Your task to perform on an android device: What's the weather going to be this weekend? Image 0: 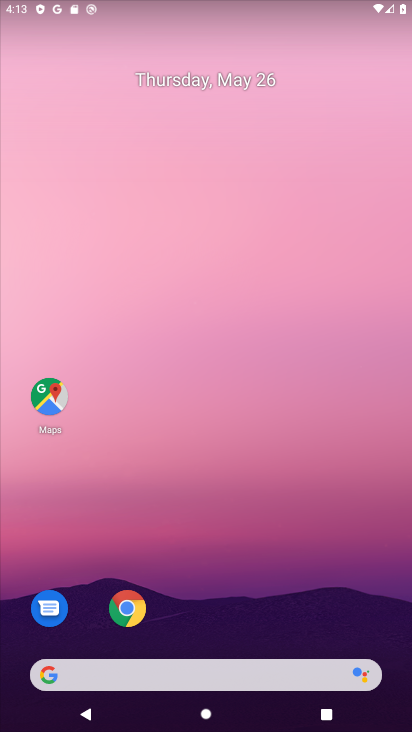
Step 0: drag from (283, 716) to (267, 112)
Your task to perform on an android device: What's the weather going to be this weekend? Image 1: 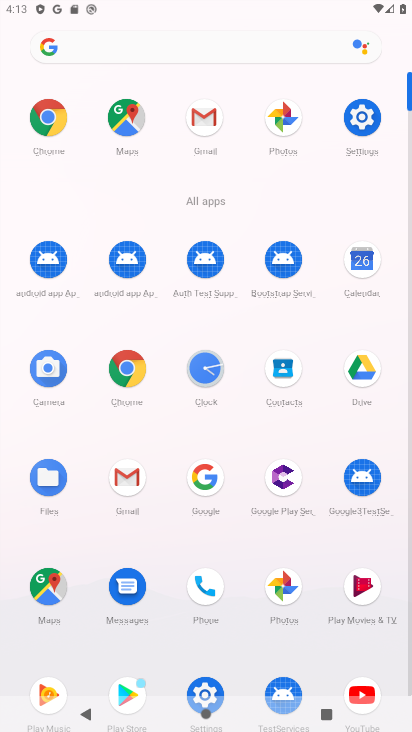
Step 1: click (86, 48)
Your task to perform on an android device: What's the weather going to be this weekend? Image 2: 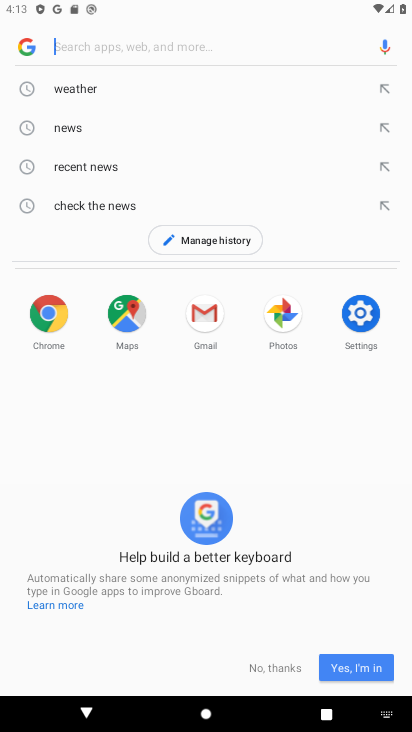
Step 2: click (112, 95)
Your task to perform on an android device: What's the weather going to be this weekend? Image 3: 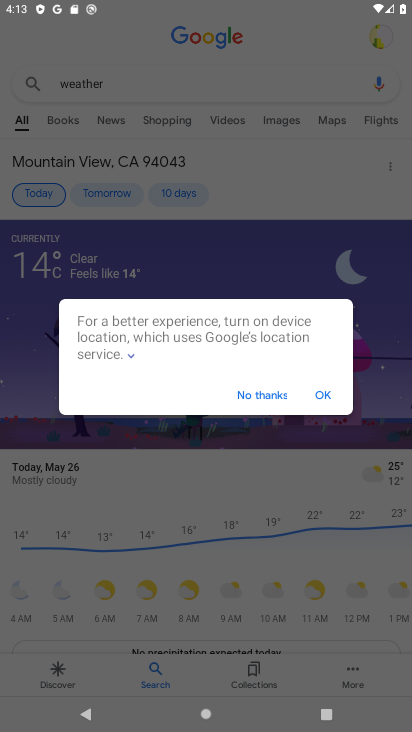
Step 3: click (252, 400)
Your task to perform on an android device: What's the weather going to be this weekend? Image 4: 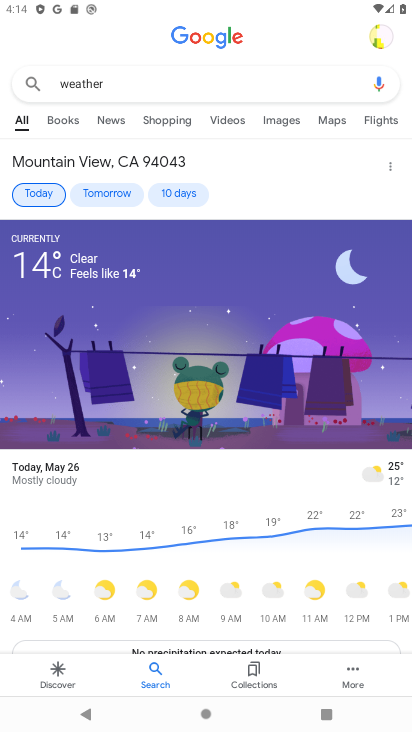
Step 4: click (179, 192)
Your task to perform on an android device: What's the weather going to be this weekend? Image 5: 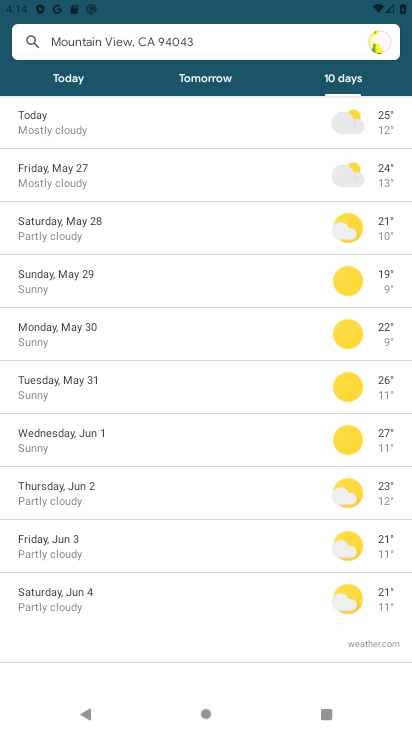
Step 5: task complete